Your task to perform on an android device: toggle sleep mode Image 0: 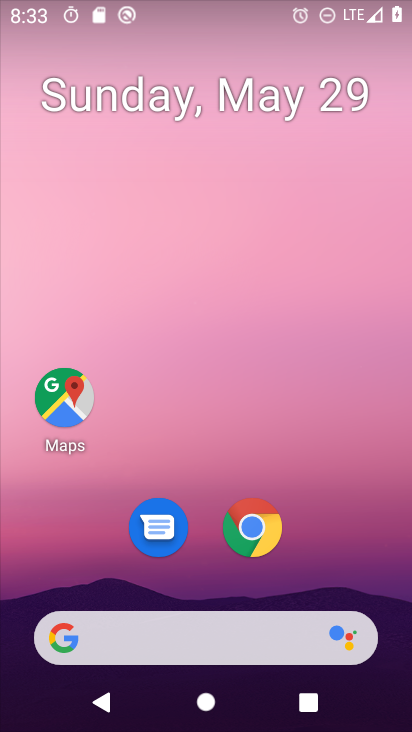
Step 0: drag from (399, 639) to (278, 10)
Your task to perform on an android device: toggle sleep mode Image 1: 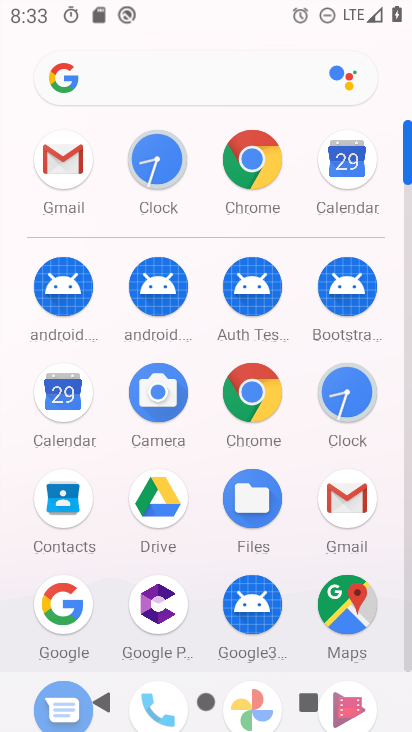
Step 1: drag from (211, 648) to (193, 120)
Your task to perform on an android device: toggle sleep mode Image 2: 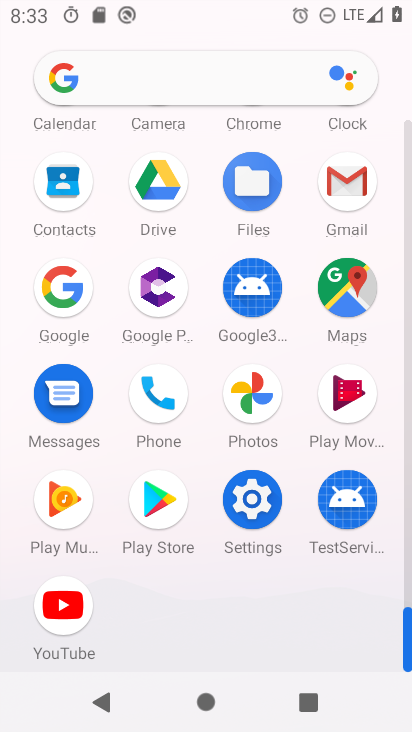
Step 2: click (255, 506)
Your task to perform on an android device: toggle sleep mode Image 3: 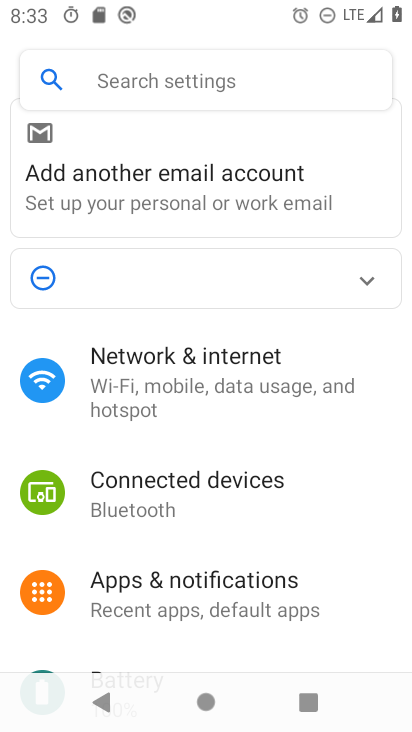
Step 3: task complete